Your task to perform on an android device: Toggle the flashlight Image 0: 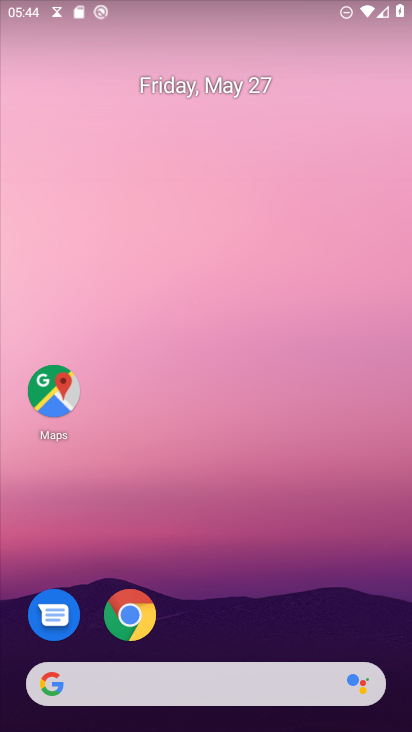
Step 0: drag from (252, 5) to (198, 603)
Your task to perform on an android device: Toggle the flashlight Image 1: 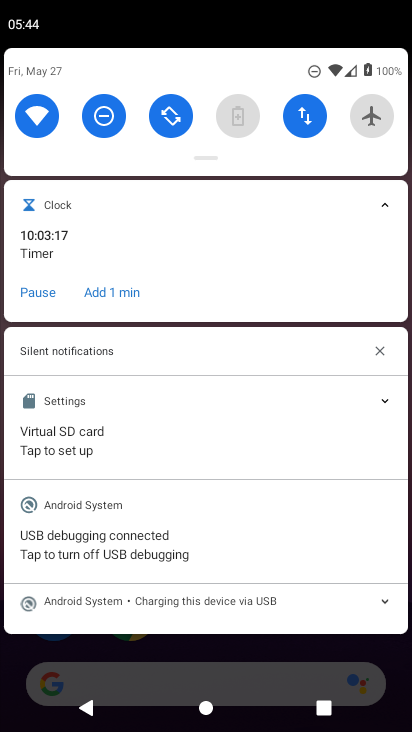
Step 1: task complete